Your task to perform on an android device: check data usage Image 0: 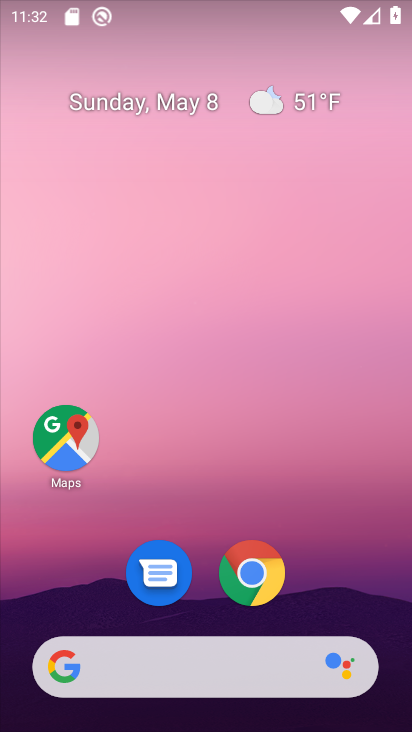
Step 0: drag from (192, 634) to (192, 257)
Your task to perform on an android device: check data usage Image 1: 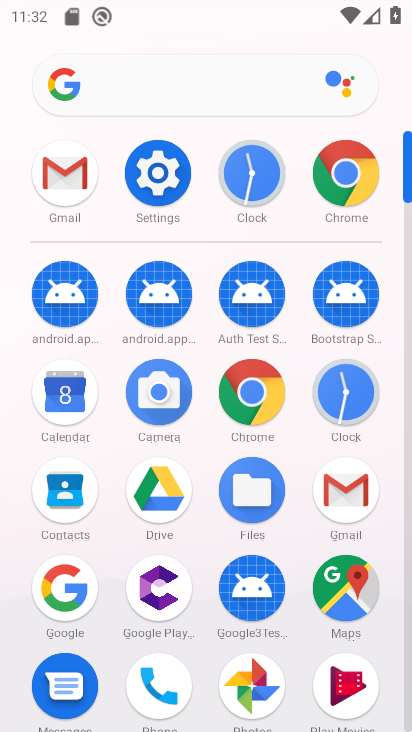
Step 1: click (164, 181)
Your task to perform on an android device: check data usage Image 2: 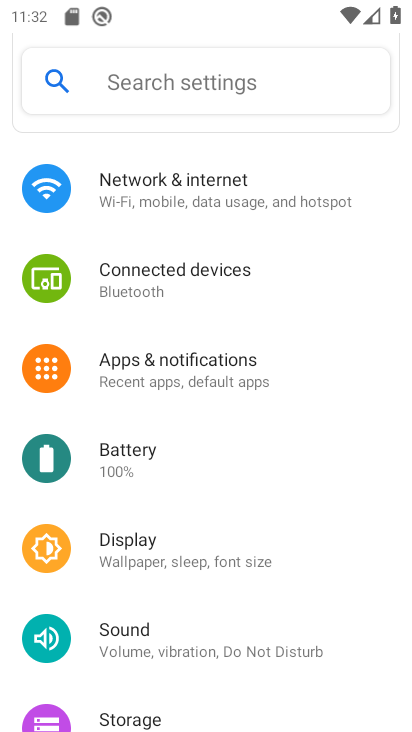
Step 2: drag from (164, 172) to (226, 591)
Your task to perform on an android device: check data usage Image 3: 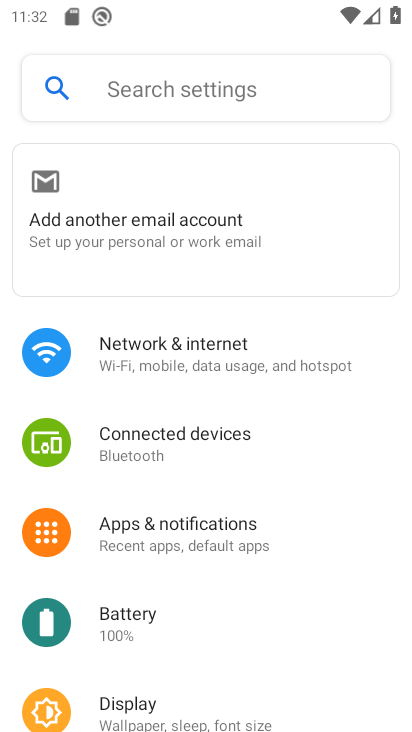
Step 3: click (178, 346)
Your task to perform on an android device: check data usage Image 4: 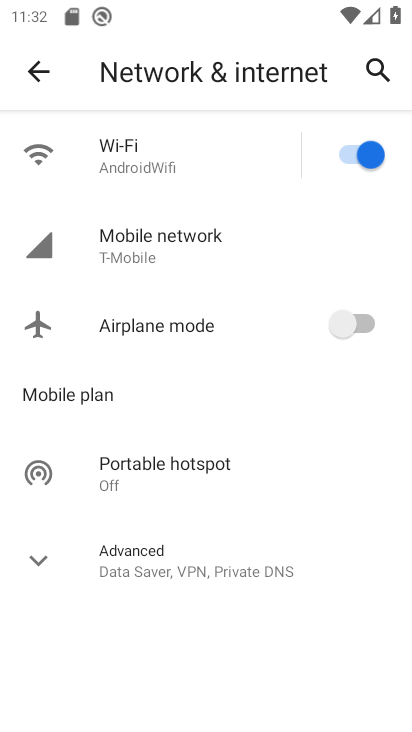
Step 4: click (155, 247)
Your task to perform on an android device: check data usage Image 5: 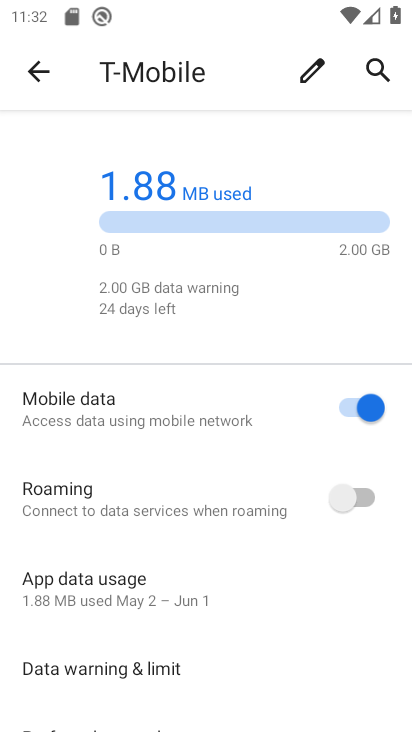
Step 5: task complete